Your task to perform on an android device: change the clock display to show seconds Image 0: 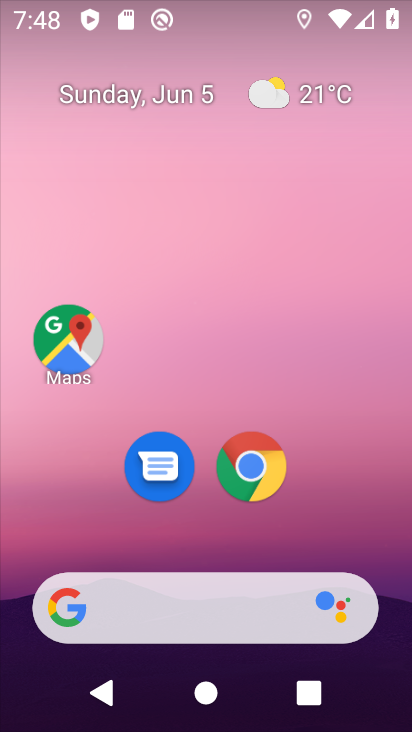
Step 0: drag from (174, 464) to (252, 45)
Your task to perform on an android device: change the clock display to show seconds Image 1: 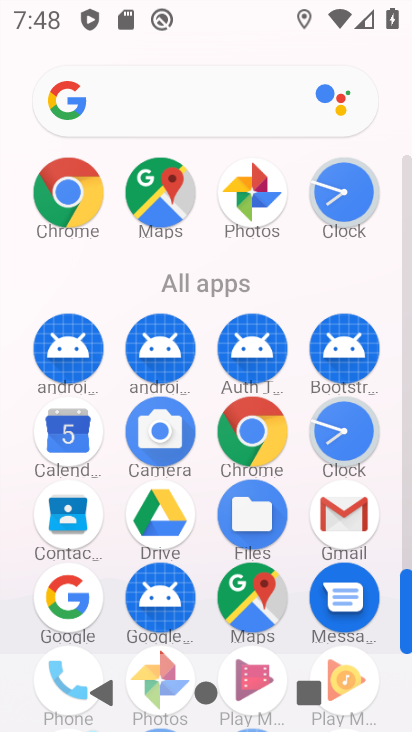
Step 1: click (333, 442)
Your task to perform on an android device: change the clock display to show seconds Image 2: 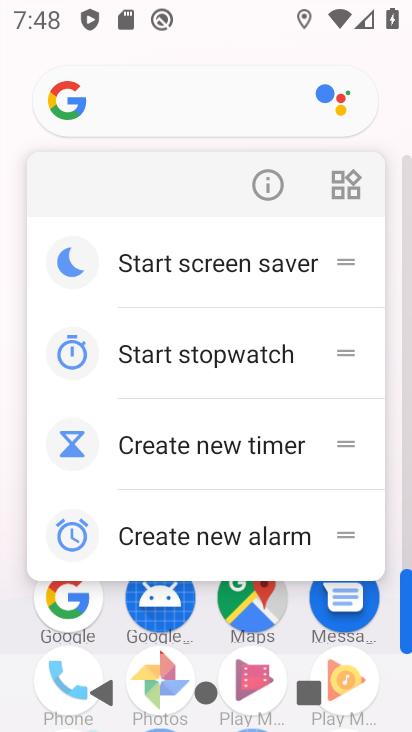
Step 2: click (266, 168)
Your task to perform on an android device: change the clock display to show seconds Image 3: 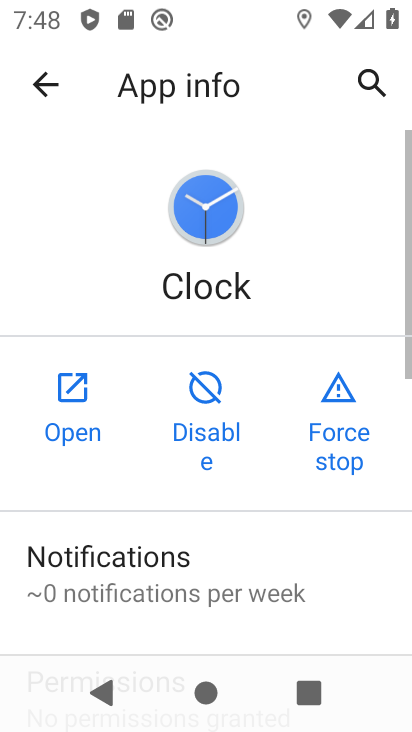
Step 3: click (72, 419)
Your task to perform on an android device: change the clock display to show seconds Image 4: 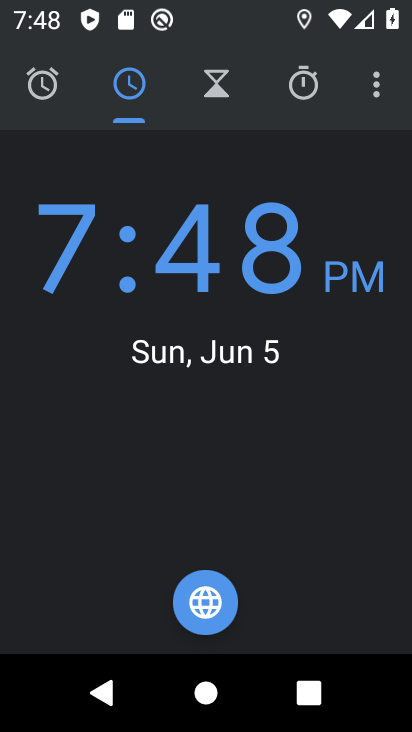
Step 4: click (372, 84)
Your task to perform on an android device: change the clock display to show seconds Image 5: 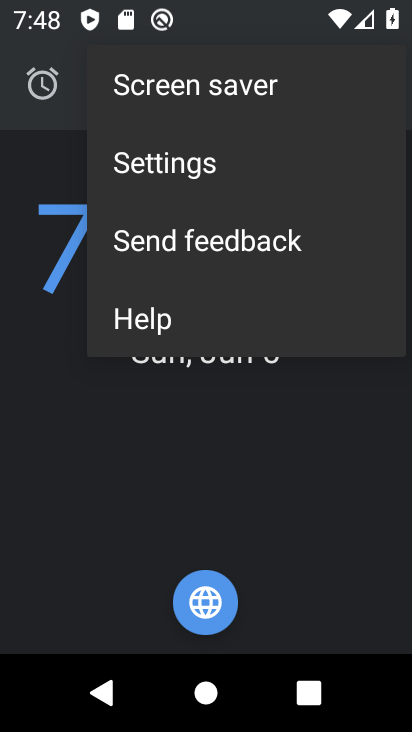
Step 5: click (190, 159)
Your task to perform on an android device: change the clock display to show seconds Image 6: 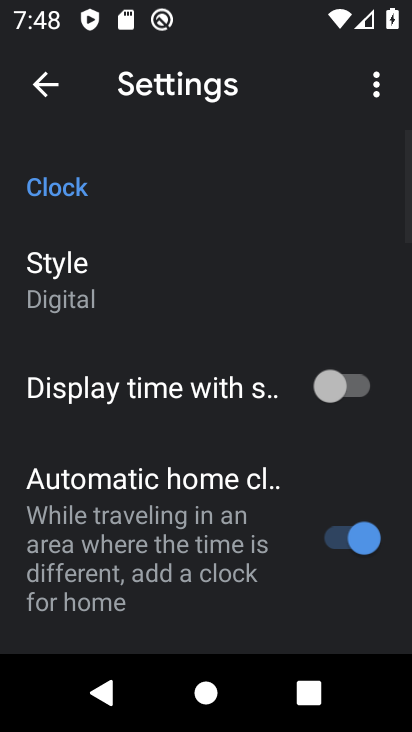
Step 6: click (96, 314)
Your task to perform on an android device: change the clock display to show seconds Image 7: 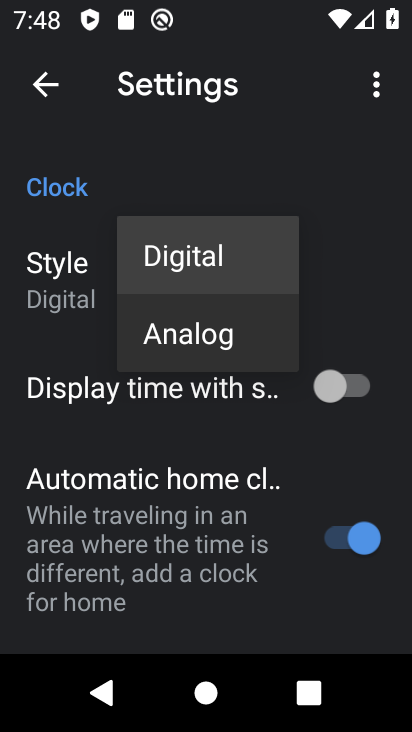
Step 7: click (96, 314)
Your task to perform on an android device: change the clock display to show seconds Image 8: 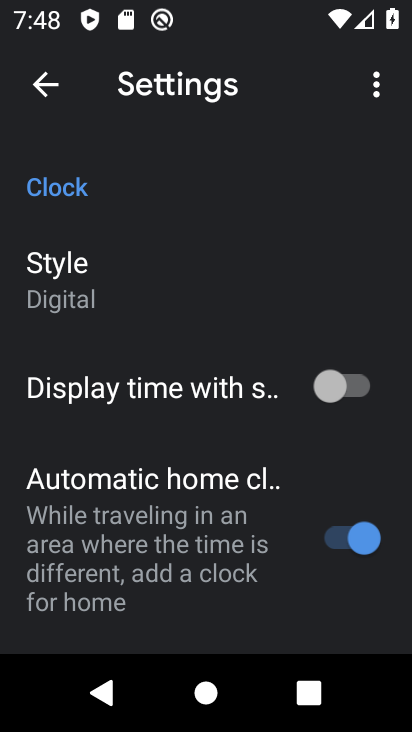
Step 8: click (330, 404)
Your task to perform on an android device: change the clock display to show seconds Image 9: 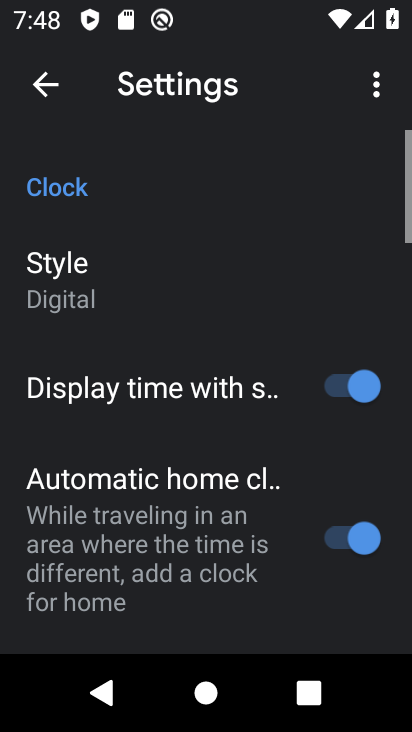
Step 9: task complete